Your task to perform on an android device: Open maps Image 0: 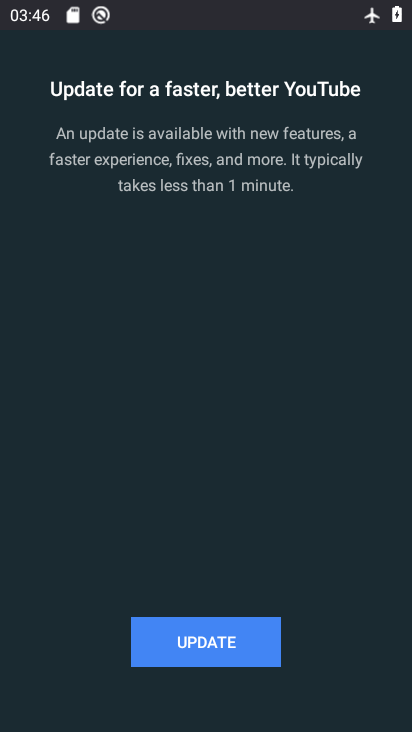
Step 0: press home button
Your task to perform on an android device: Open maps Image 1: 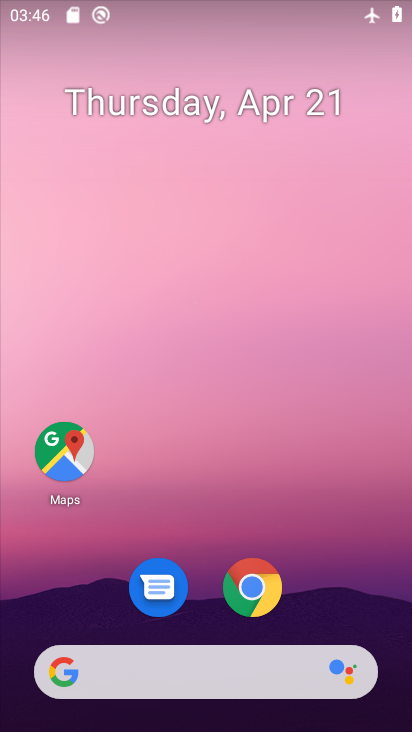
Step 1: drag from (342, 602) to (351, 125)
Your task to perform on an android device: Open maps Image 2: 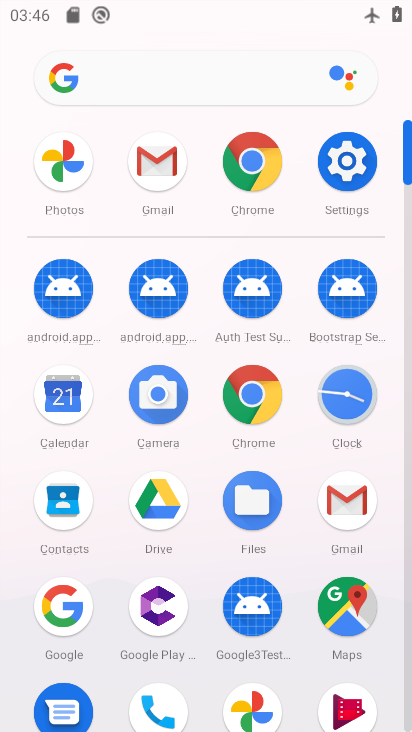
Step 2: click (363, 613)
Your task to perform on an android device: Open maps Image 3: 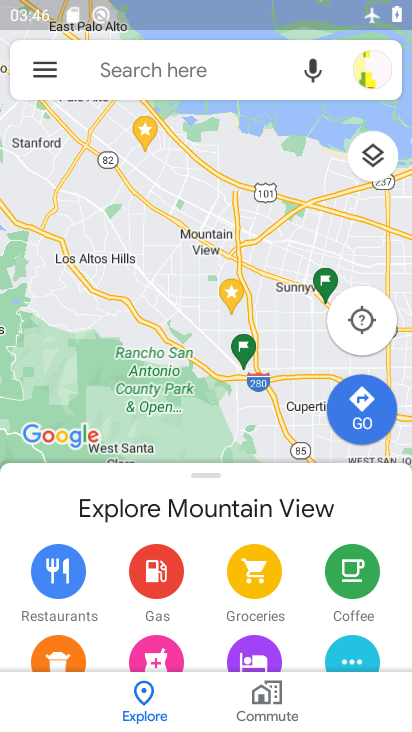
Step 3: task complete